Your task to perform on an android device: What's the weather going to be tomorrow? Image 0: 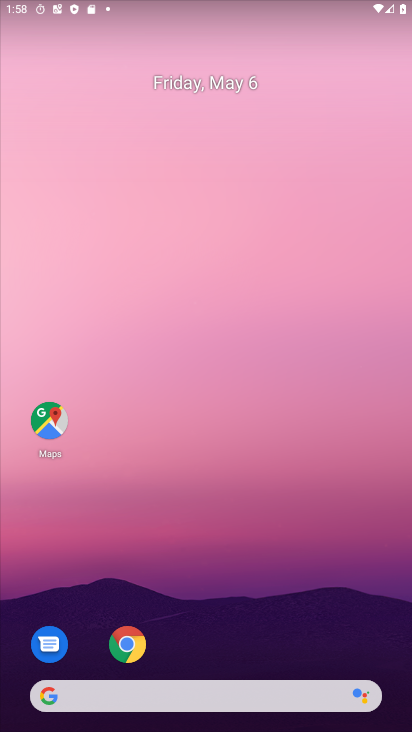
Step 0: click (202, 698)
Your task to perform on an android device: What's the weather going to be tomorrow? Image 1: 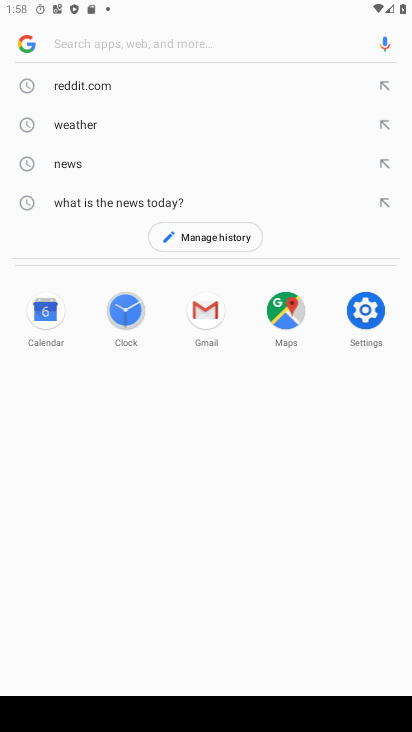
Step 1: type "What's the weather going to be tomorrow?"
Your task to perform on an android device: What's the weather going to be tomorrow? Image 2: 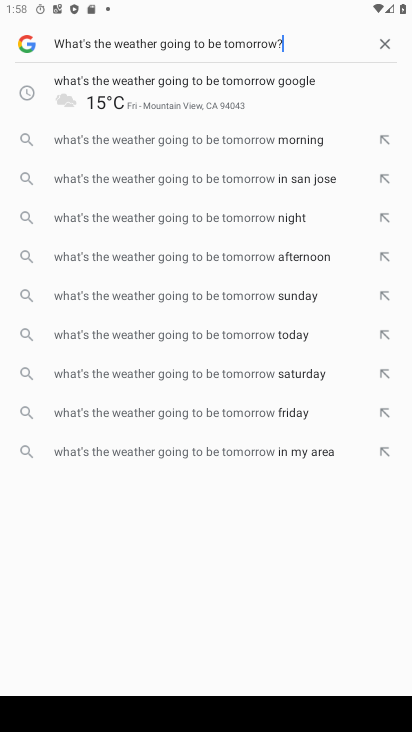
Step 2: click (289, 104)
Your task to perform on an android device: What's the weather going to be tomorrow? Image 3: 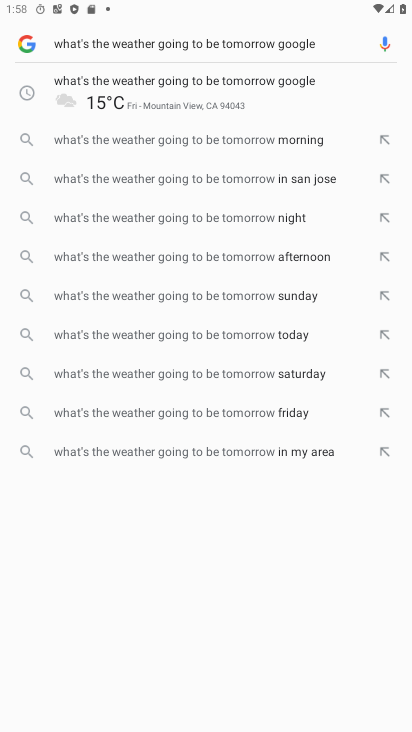
Step 3: click (301, 85)
Your task to perform on an android device: What's the weather going to be tomorrow? Image 4: 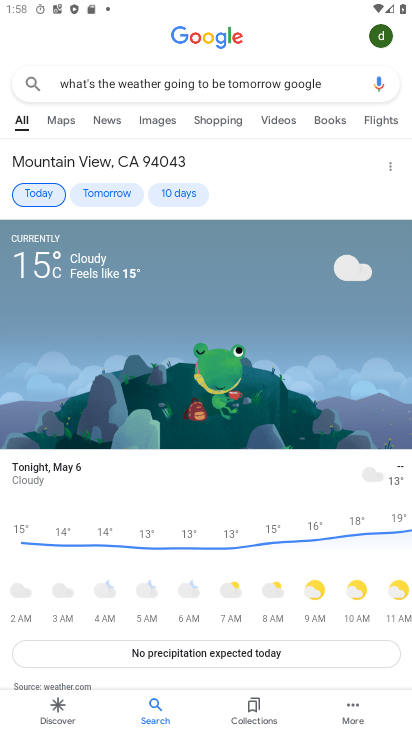
Step 4: task complete